Your task to perform on an android device: delete browsing data in the chrome app Image 0: 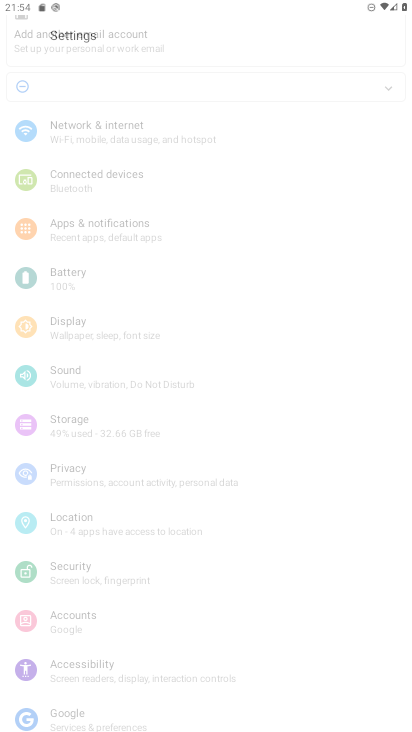
Step 0: drag from (234, 562) to (222, 179)
Your task to perform on an android device: delete browsing data in the chrome app Image 1: 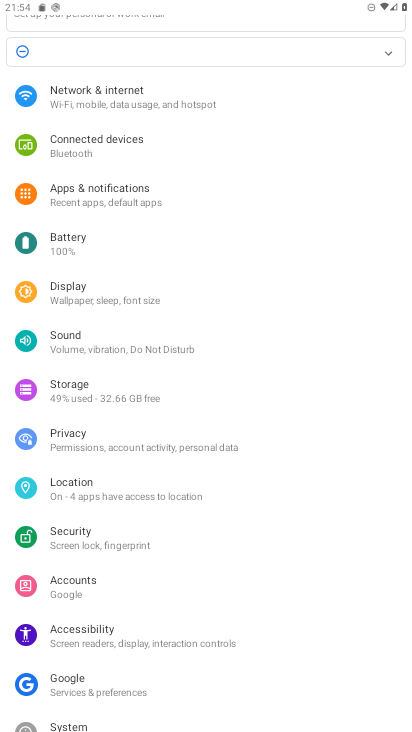
Step 1: press home button
Your task to perform on an android device: delete browsing data in the chrome app Image 2: 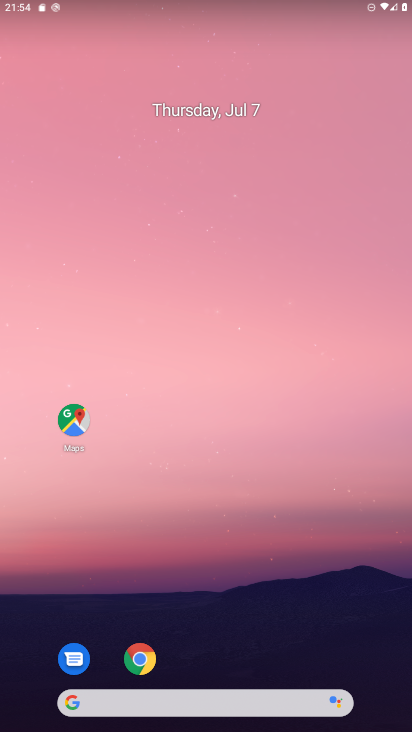
Step 2: click (141, 661)
Your task to perform on an android device: delete browsing data in the chrome app Image 3: 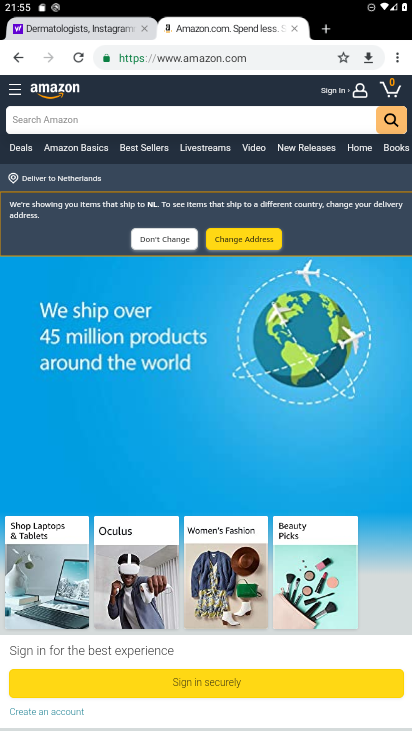
Step 3: click (392, 58)
Your task to perform on an android device: delete browsing data in the chrome app Image 4: 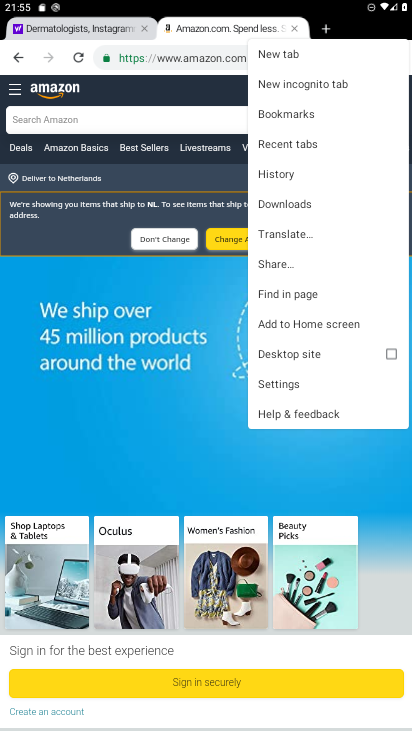
Step 4: click (281, 173)
Your task to perform on an android device: delete browsing data in the chrome app Image 5: 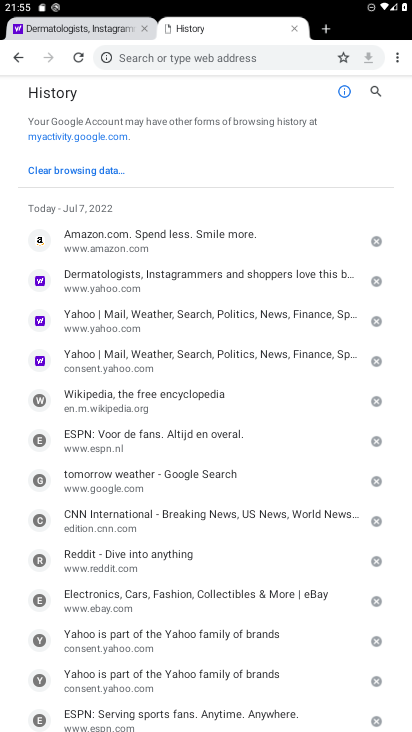
Step 5: click (74, 169)
Your task to perform on an android device: delete browsing data in the chrome app Image 6: 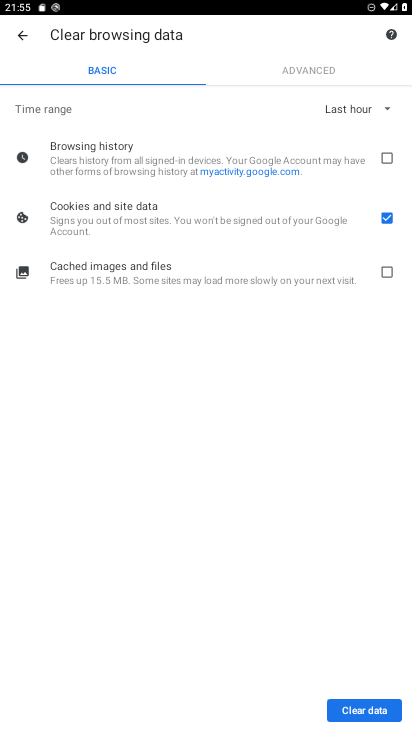
Step 6: click (388, 153)
Your task to perform on an android device: delete browsing data in the chrome app Image 7: 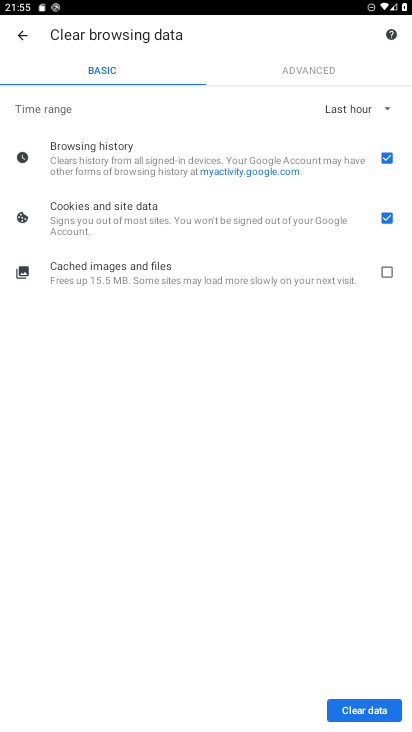
Step 7: click (386, 221)
Your task to perform on an android device: delete browsing data in the chrome app Image 8: 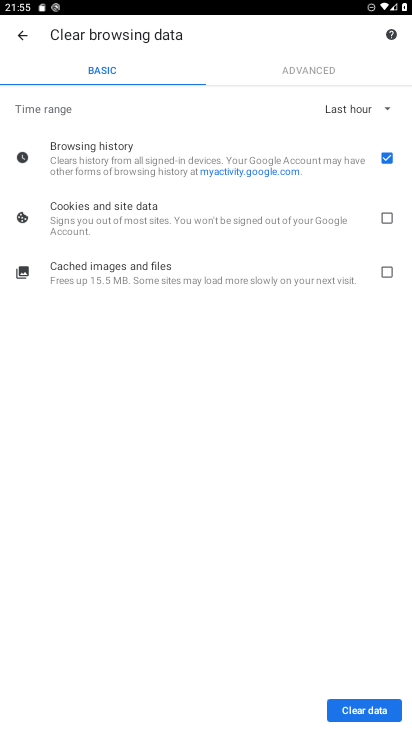
Step 8: click (349, 707)
Your task to perform on an android device: delete browsing data in the chrome app Image 9: 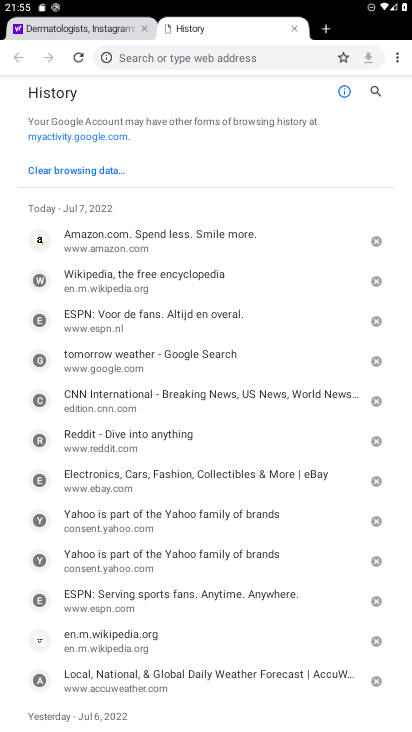
Step 9: click (96, 164)
Your task to perform on an android device: delete browsing data in the chrome app Image 10: 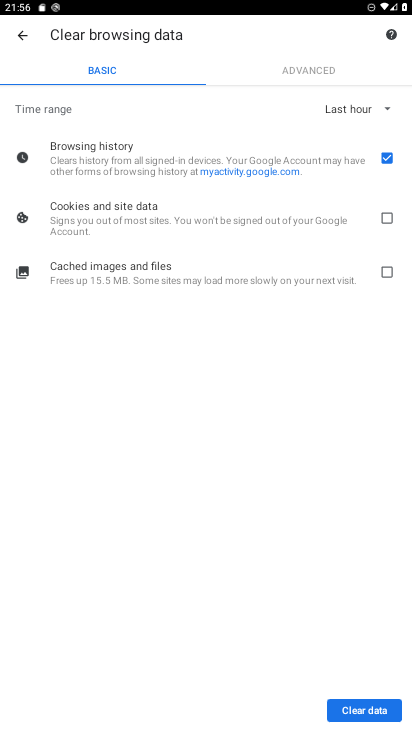
Step 10: click (387, 107)
Your task to perform on an android device: delete browsing data in the chrome app Image 11: 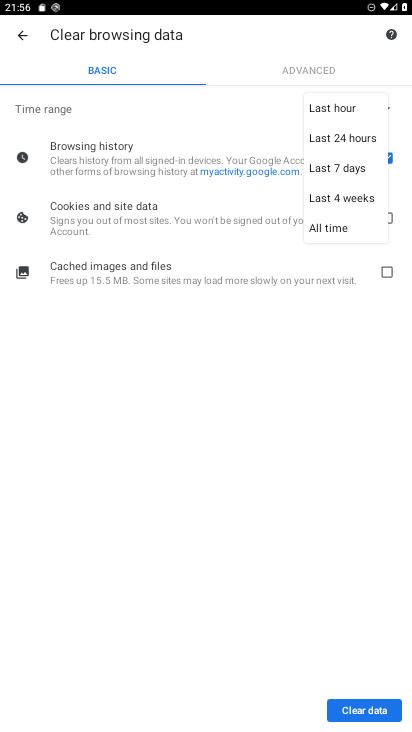
Step 11: click (386, 218)
Your task to perform on an android device: delete browsing data in the chrome app Image 12: 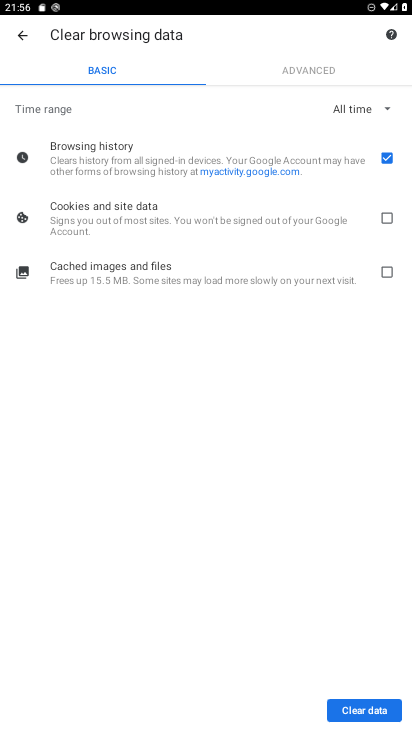
Step 12: click (360, 706)
Your task to perform on an android device: delete browsing data in the chrome app Image 13: 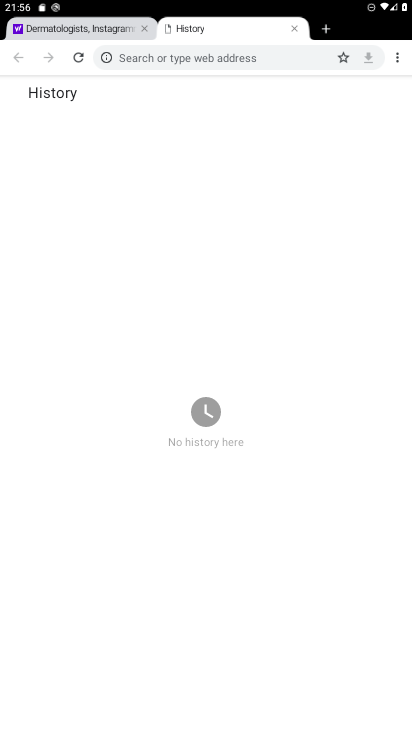
Step 13: task complete